Your task to perform on an android device: toggle javascript in the chrome app Image 0: 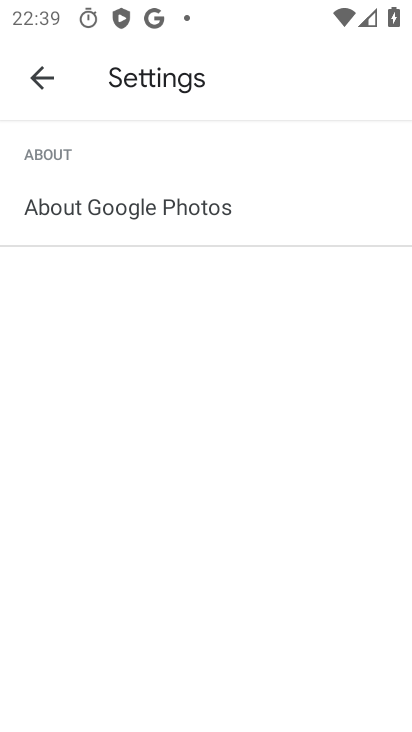
Step 0: click (26, 78)
Your task to perform on an android device: toggle javascript in the chrome app Image 1: 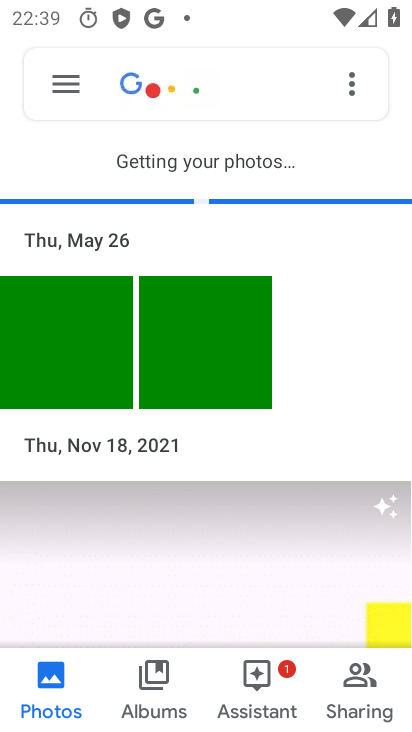
Step 1: press back button
Your task to perform on an android device: toggle javascript in the chrome app Image 2: 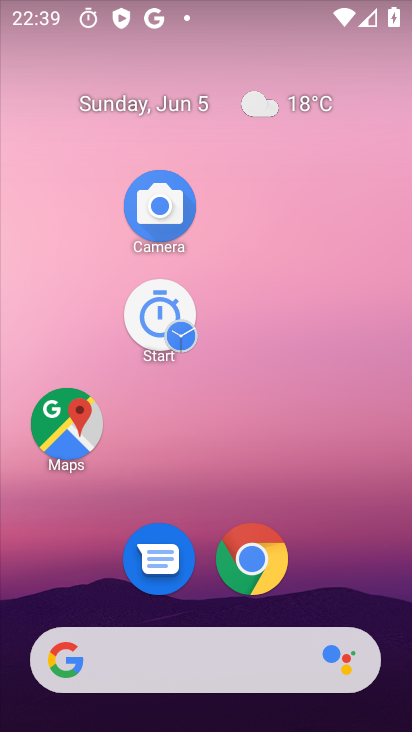
Step 2: drag from (275, 694) to (212, 180)
Your task to perform on an android device: toggle javascript in the chrome app Image 3: 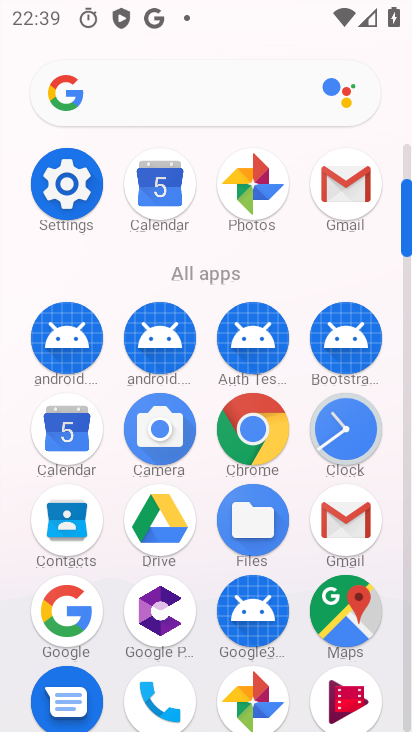
Step 3: click (247, 423)
Your task to perform on an android device: toggle javascript in the chrome app Image 4: 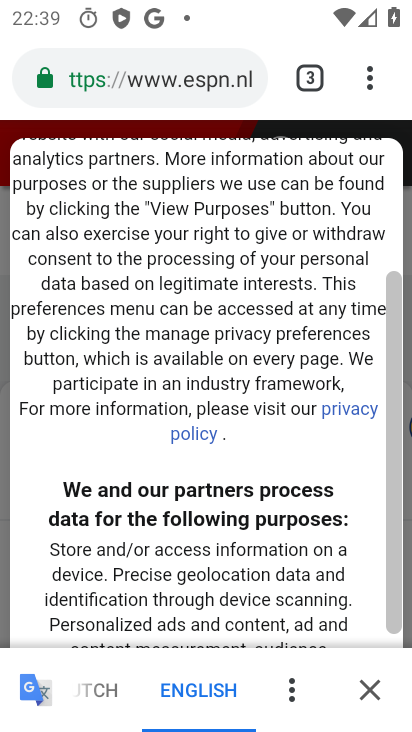
Step 4: click (364, 687)
Your task to perform on an android device: toggle javascript in the chrome app Image 5: 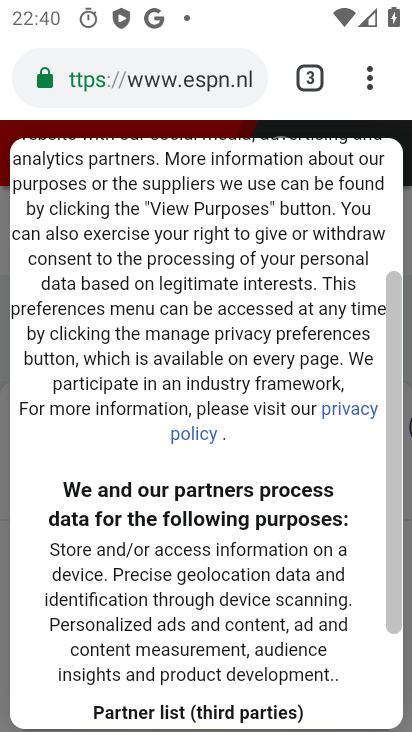
Step 5: press back button
Your task to perform on an android device: toggle javascript in the chrome app Image 6: 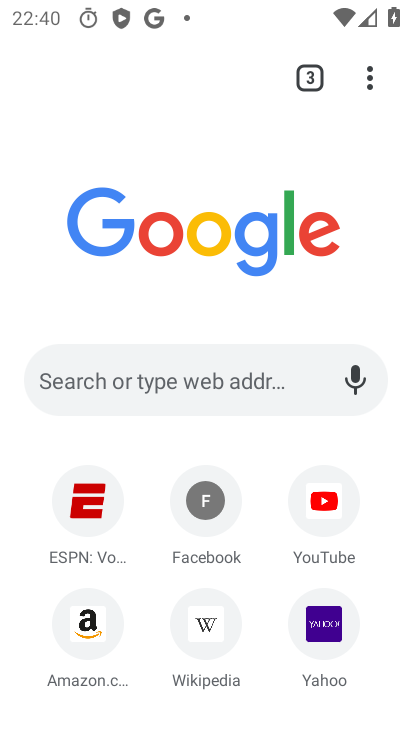
Step 6: press home button
Your task to perform on an android device: toggle javascript in the chrome app Image 7: 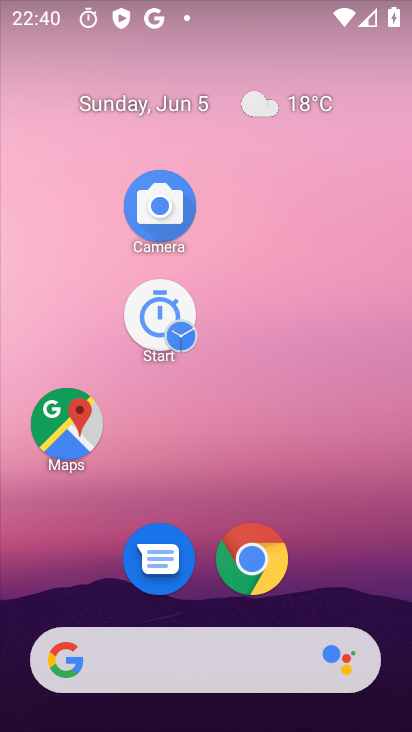
Step 7: drag from (282, 685) to (316, 5)
Your task to perform on an android device: toggle javascript in the chrome app Image 8: 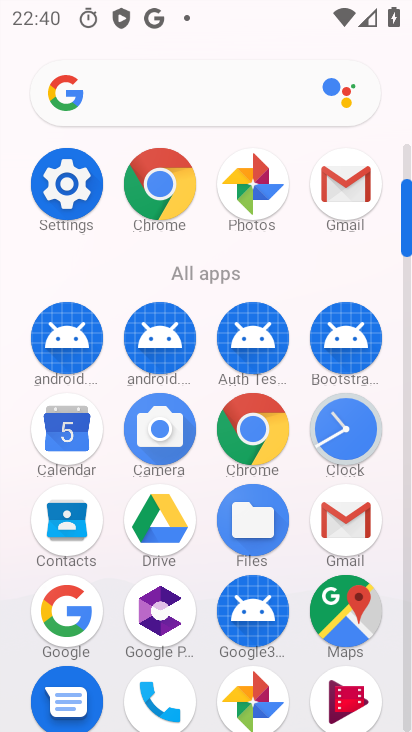
Step 8: click (157, 183)
Your task to perform on an android device: toggle javascript in the chrome app Image 9: 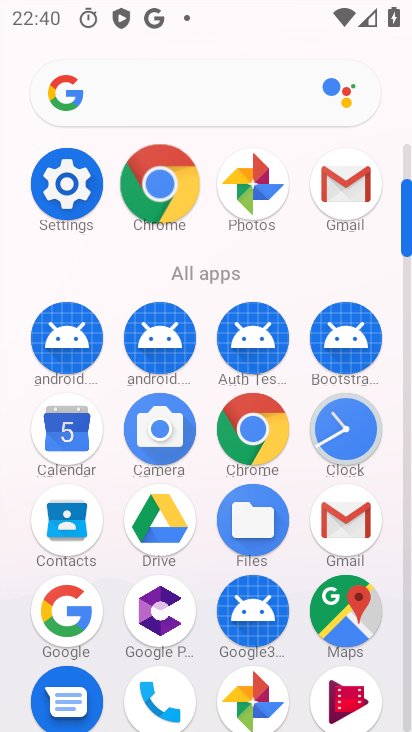
Step 9: click (155, 187)
Your task to perform on an android device: toggle javascript in the chrome app Image 10: 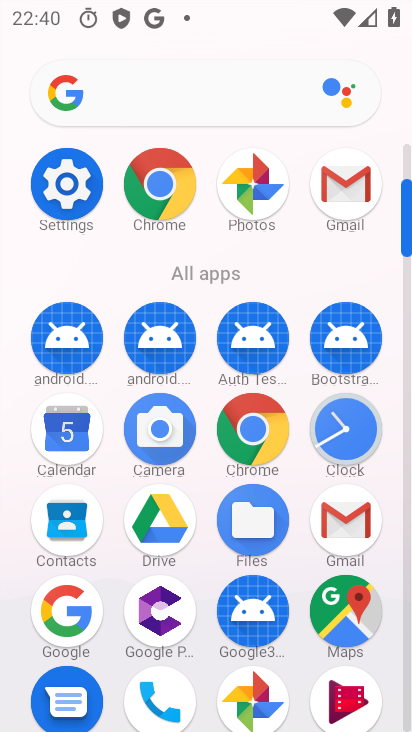
Step 10: click (152, 189)
Your task to perform on an android device: toggle javascript in the chrome app Image 11: 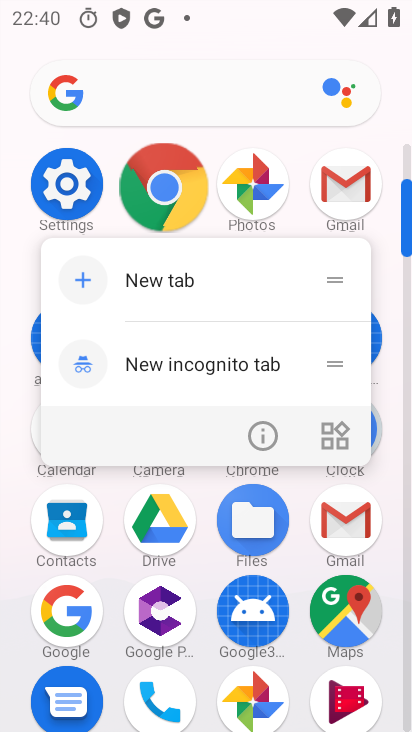
Step 11: click (158, 192)
Your task to perform on an android device: toggle javascript in the chrome app Image 12: 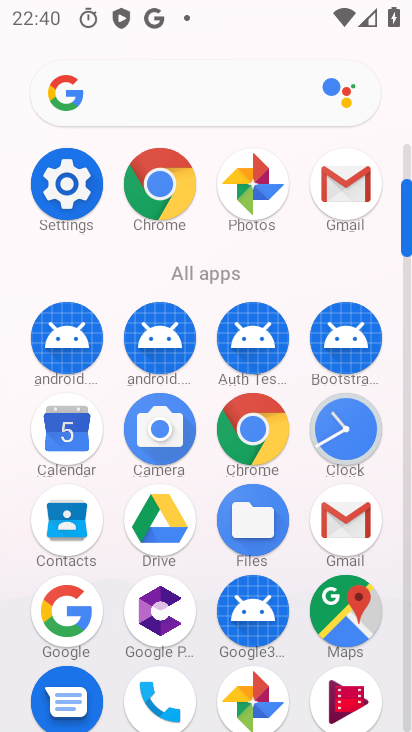
Step 12: click (162, 192)
Your task to perform on an android device: toggle javascript in the chrome app Image 13: 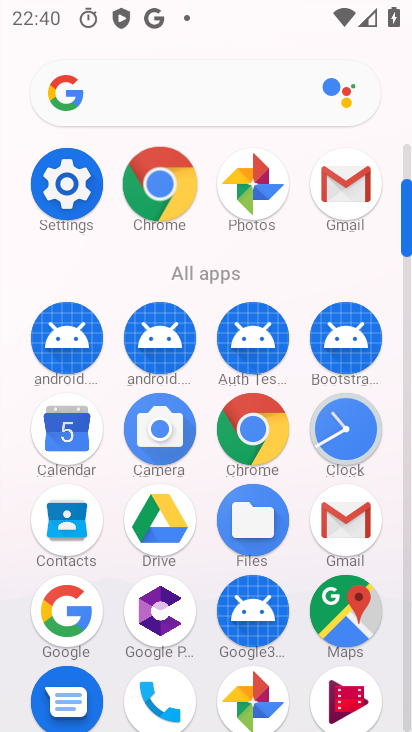
Step 13: click (173, 188)
Your task to perform on an android device: toggle javascript in the chrome app Image 14: 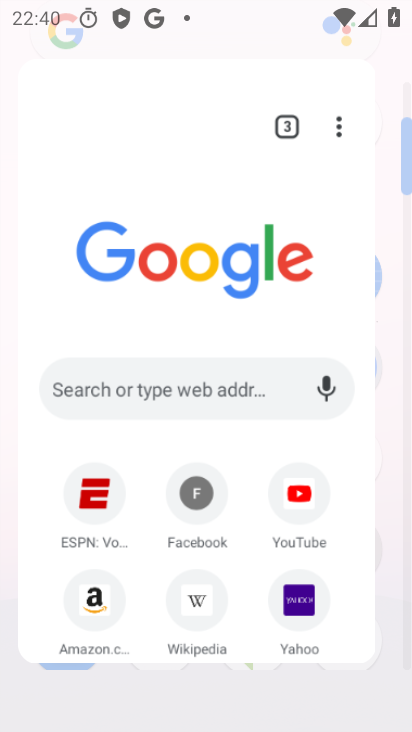
Step 14: click (159, 187)
Your task to perform on an android device: toggle javascript in the chrome app Image 15: 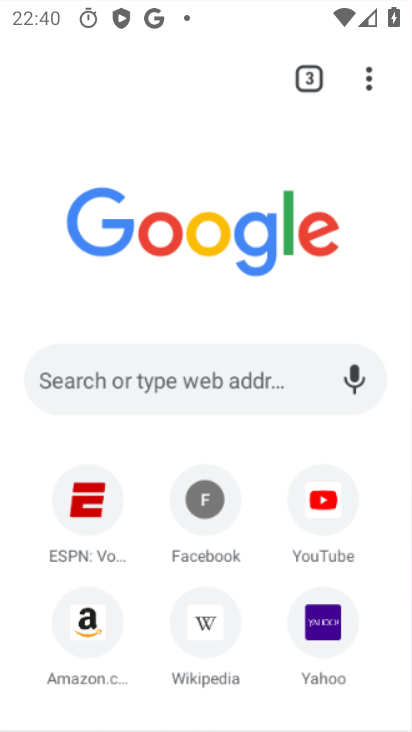
Step 15: click (141, 186)
Your task to perform on an android device: toggle javascript in the chrome app Image 16: 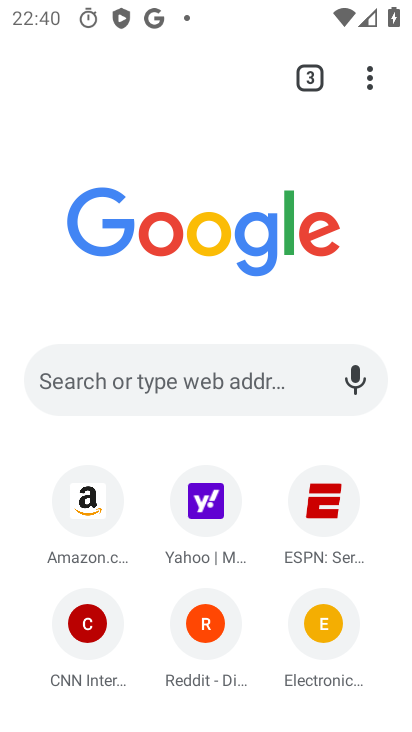
Step 16: drag from (369, 82) to (85, 628)
Your task to perform on an android device: toggle javascript in the chrome app Image 17: 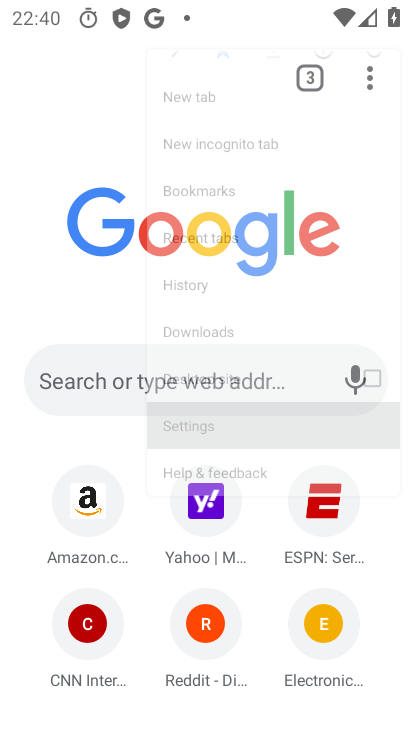
Step 17: click (85, 628)
Your task to perform on an android device: toggle javascript in the chrome app Image 18: 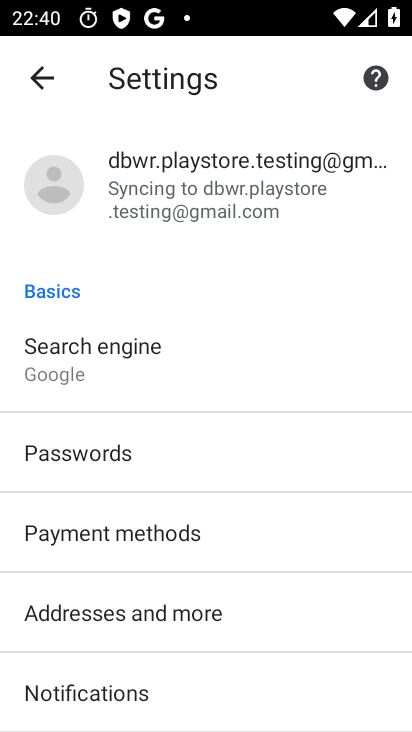
Step 18: drag from (214, 642) to (220, 187)
Your task to perform on an android device: toggle javascript in the chrome app Image 19: 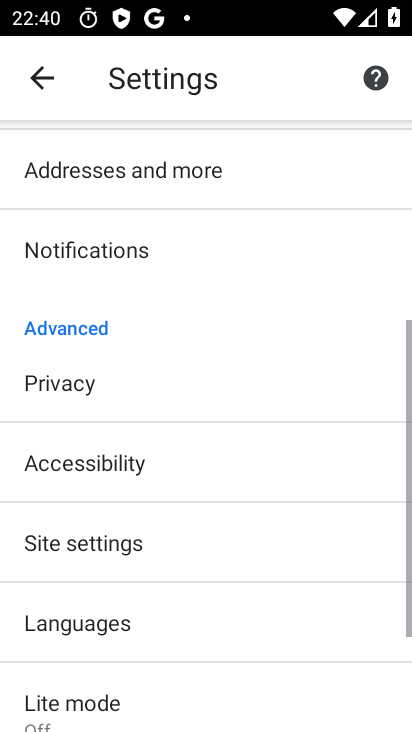
Step 19: drag from (182, 550) to (192, 150)
Your task to perform on an android device: toggle javascript in the chrome app Image 20: 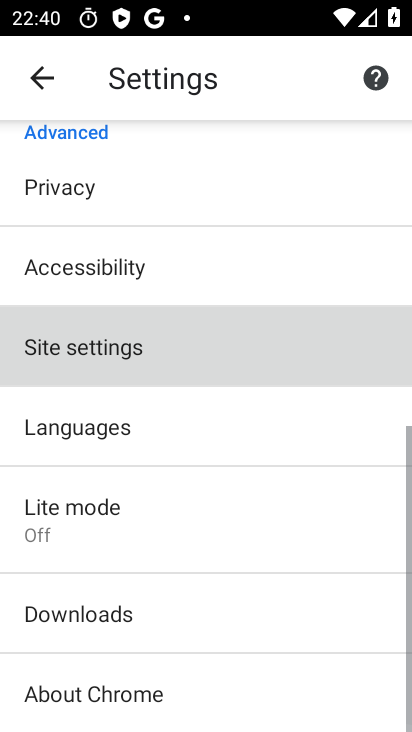
Step 20: drag from (229, 394) to (201, 232)
Your task to perform on an android device: toggle javascript in the chrome app Image 21: 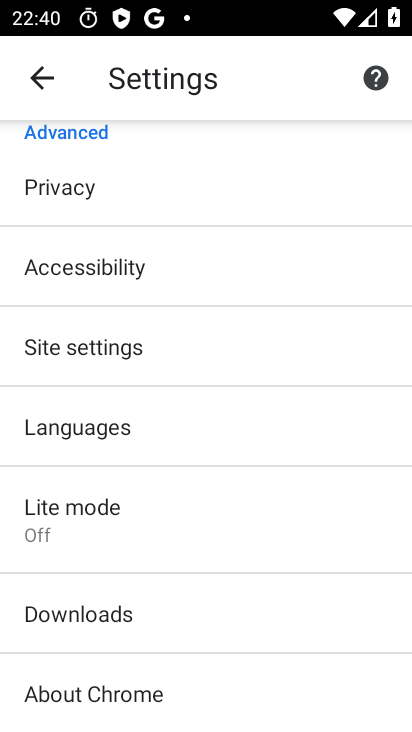
Step 21: drag from (76, 598) to (133, 231)
Your task to perform on an android device: toggle javascript in the chrome app Image 22: 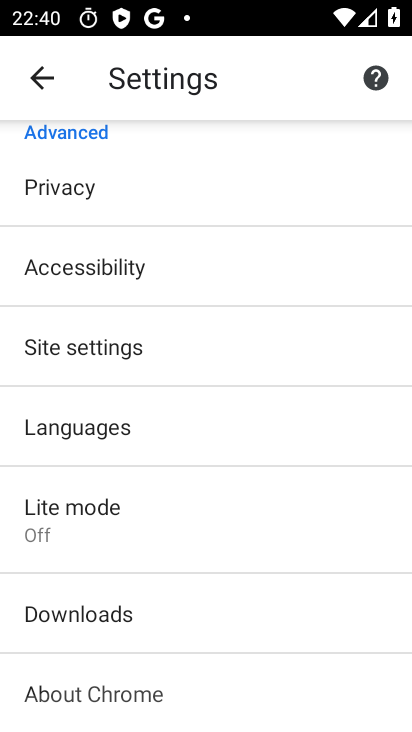
Step 22: drag from (128, 524) to (139, 211)
Your task to perform on an android device: toggle javascript in the chrome app Image 23: 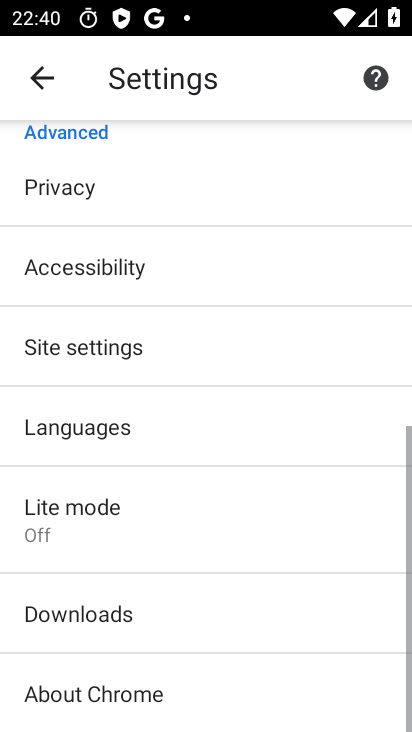
Step 23: drag from (97, 244) to (83, 556)
Your task to perform on an android device: toggle javascript in the chrome app Image 24: 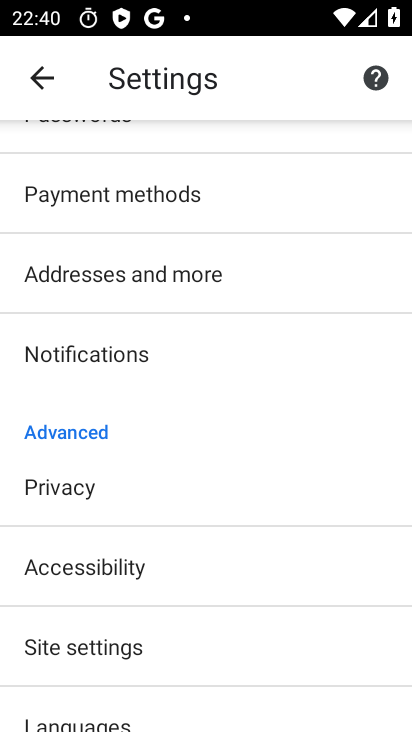
Step 24: click (64, 642)
Your task to perform on an android device: toggle javascript in the chrome app Image 25: 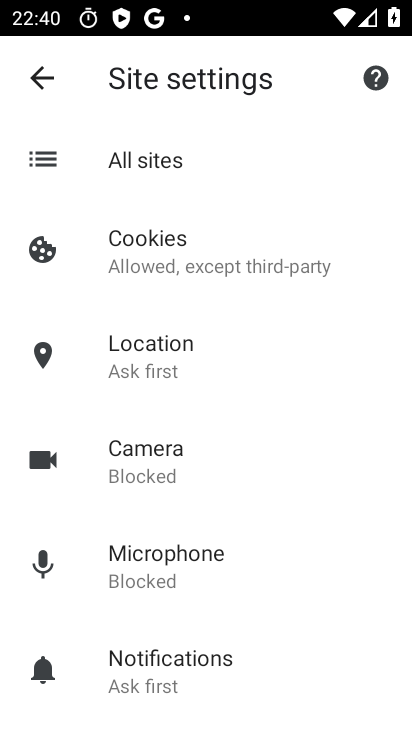
Step 25: drag from (136, 564) to (198, 164)
Your task to perform on an android device: toggle javascript in the chrome app Image 26: 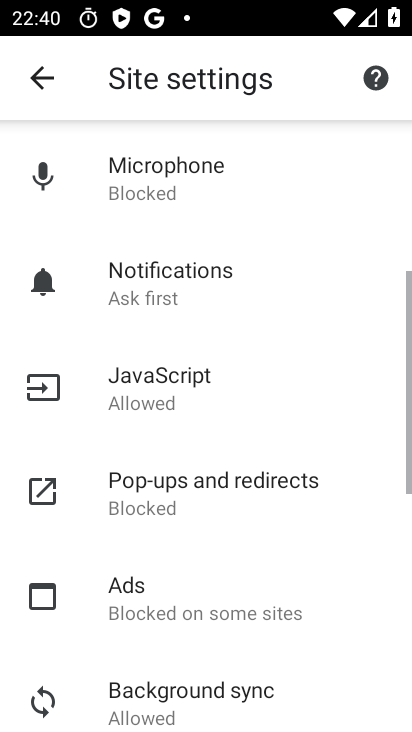
Step 26: drag from (227, 500) to (234, 202)
Your task to perform on an android device: toggle javascript in the chrome app Image 27: 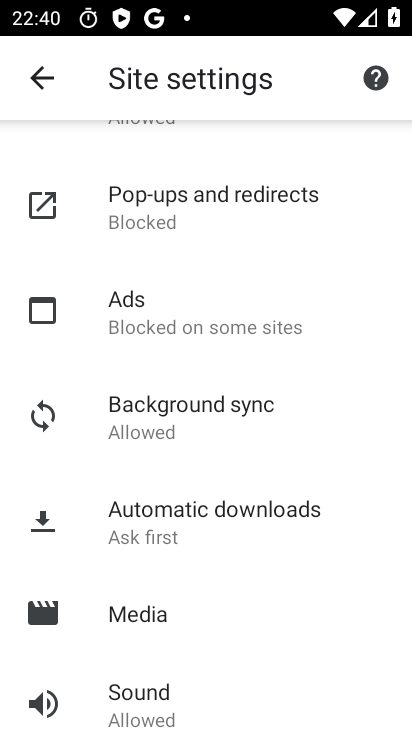
Step 27: drag from (174, 247) to (215, 547)
Your task to perform on an android device: toggle javascript in the chrome app Image 28: 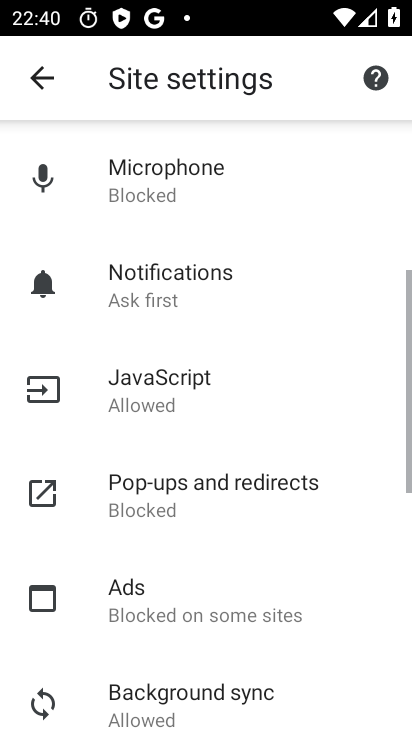
Step 28: click (151, 391)
Your task to perform on an android device: toggle javascript in the chrome app Image 29: 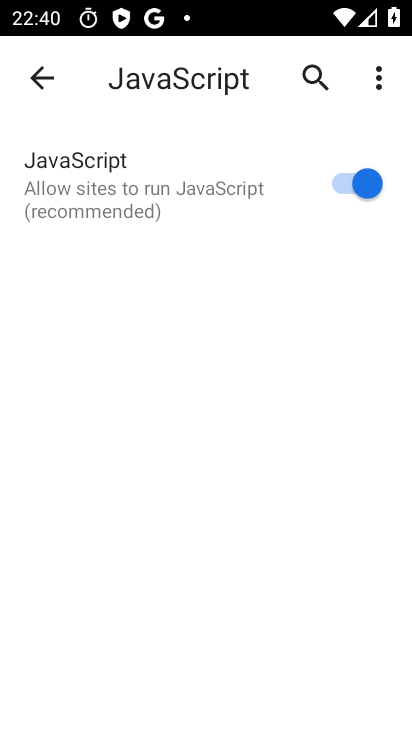
Step 29: click (369, 193)
Your task to perform on an android device: toggle javascript in the chrome app Image 30: 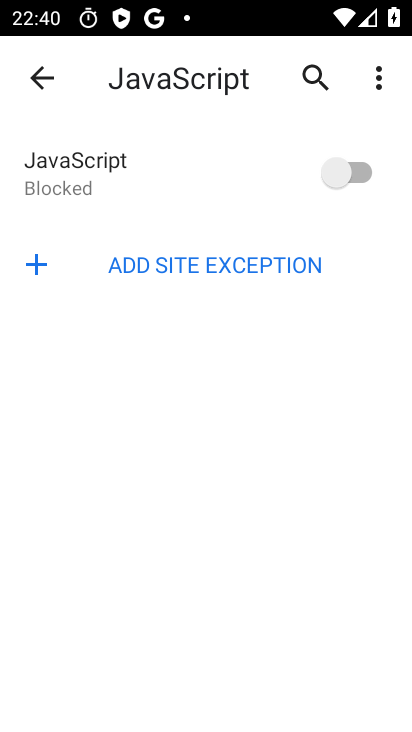
Step 30: task complete